Your task to perform on an android device: Open Wikipedia Image 0: 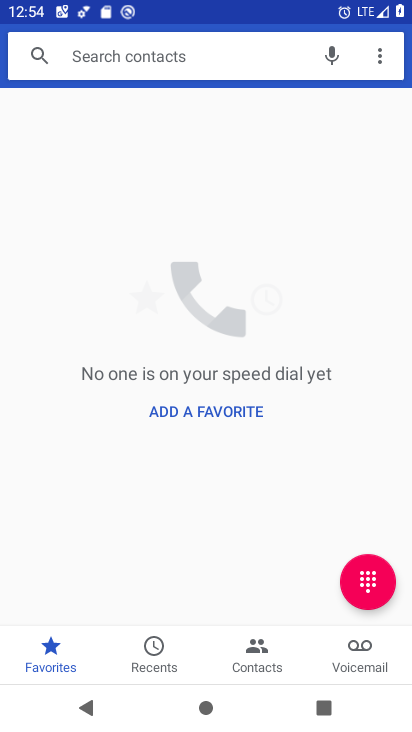
Step 0: press home button
Your task to perform on an android device: Open Wikipedia Image 1: 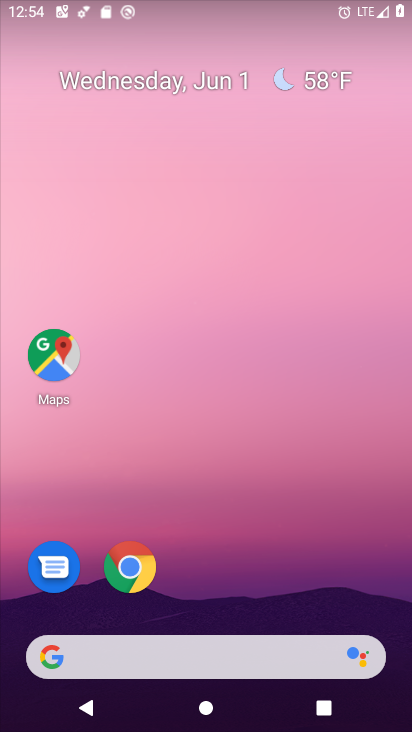
Step 1: click (133, 568)
Your task to perform on an android device: Open Wikipedia Image 2: 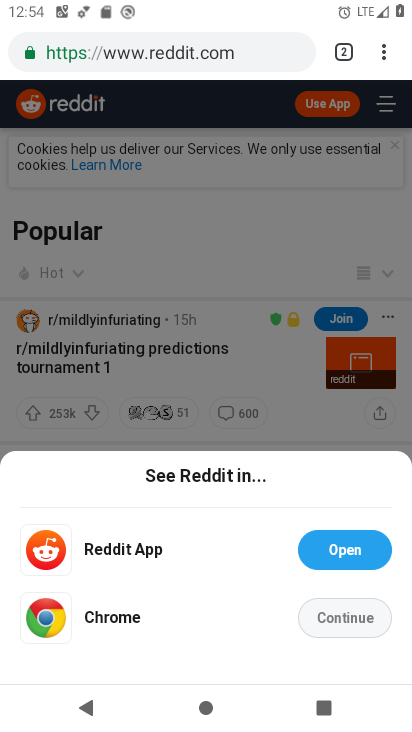
Step 2: press back button
Your task to perform on an android device: Open Wikipedia Image 3: 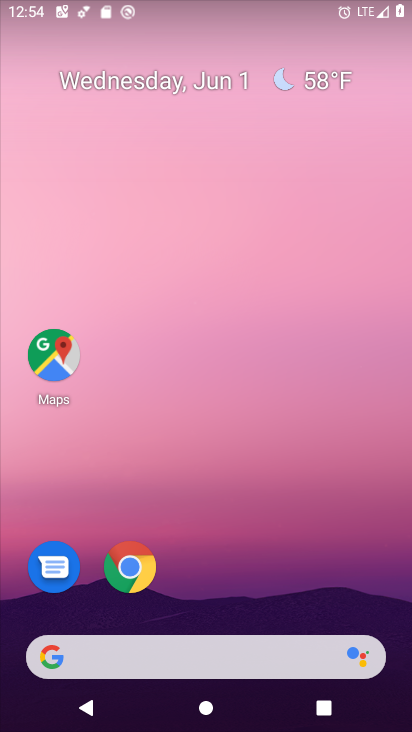
Step 3: click (137, 562)
Your task to perform on an android device: Open Wikipedia Image 4: 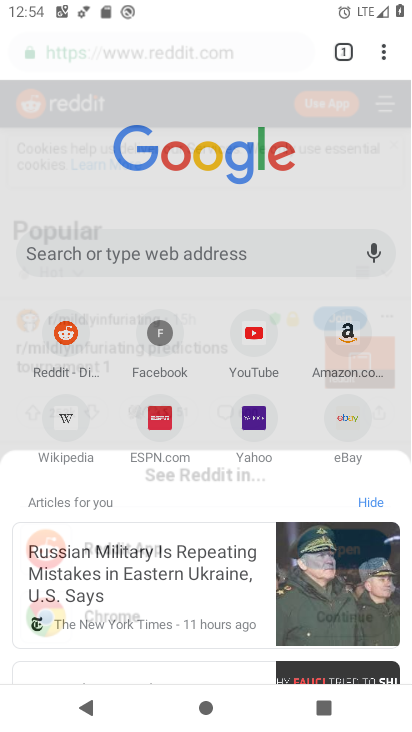
Step 4: click (343, 57)
Your task to perform on an android device: Open Wikipedia Image 5: 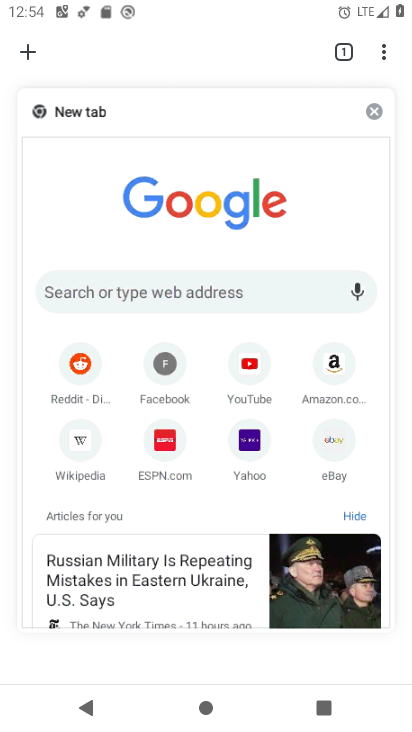
Step 5: click (322, 188)
Your task to perform on an android device: Open Wikipedia Image 6: 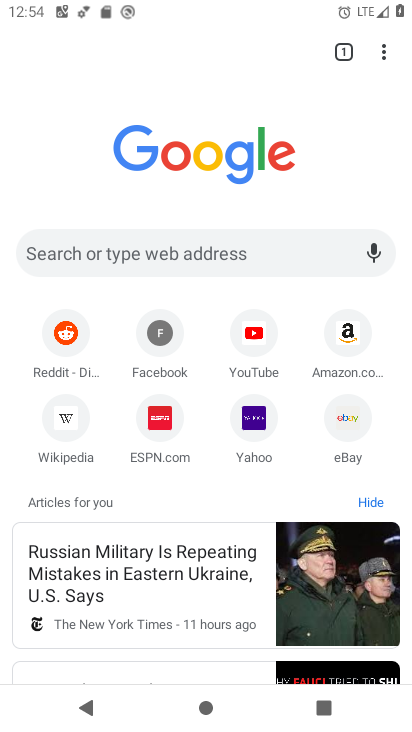
Step 6: click (62, 430)
Your task to perform on an android device: Open Wikipedia Image 7: 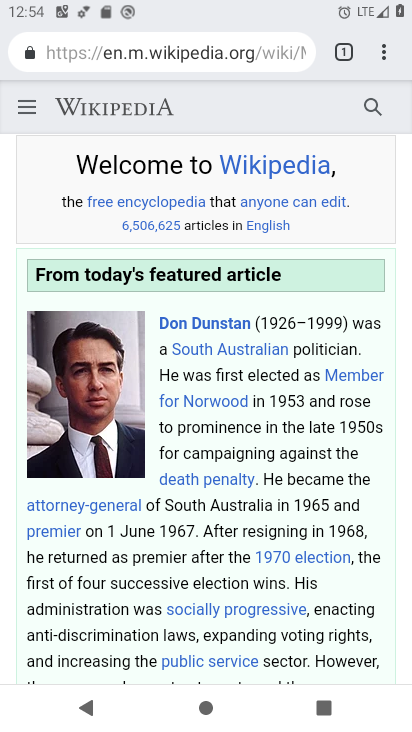
Step 7: task complete